Your task to perform on an android device: delete the emails in spam in the gmail app Image 0: 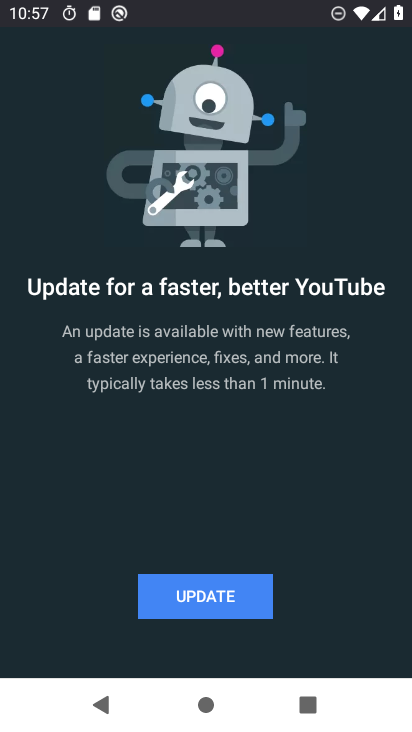
Step 0: press home button
Your task to perform on an android device: delete the emails in spam in the gmail app Image 1: 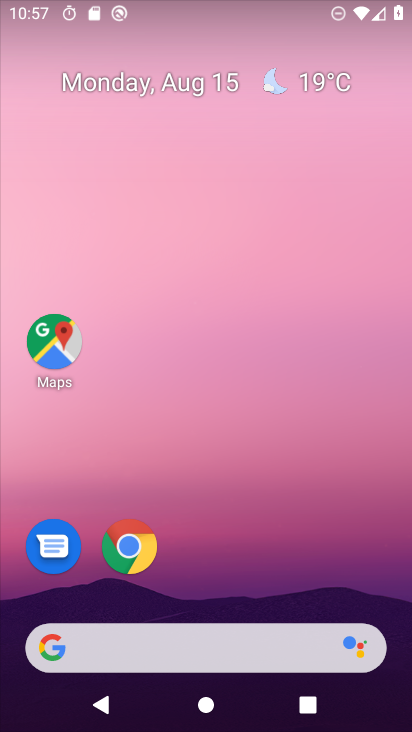
Step 1: drag from (219, 609) to (196, 20)
Your task to perform on an android device: delete the emails in spam in the gmail app Image 2: 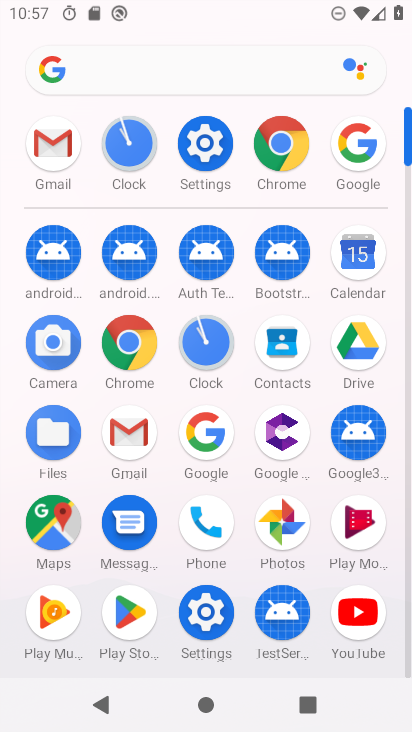
Step 2: click (122, 436)
Your task to perform on an android device: delete the emails in spam in the gmail app Image 3: 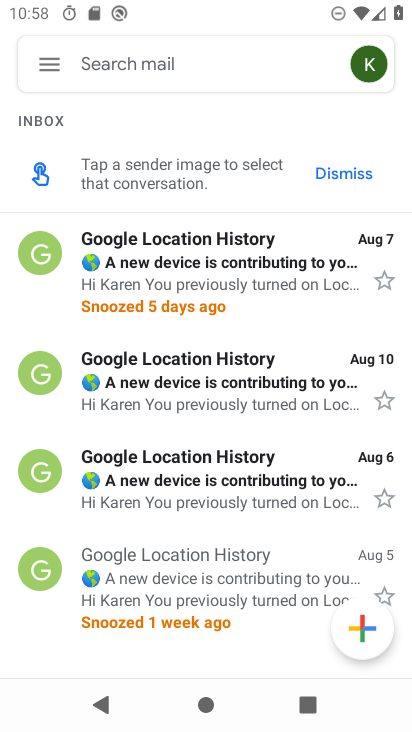
Step 3: click (52, 64)
Your task to perform on an android device: delete the emails in spam in the gmail app Image 4: 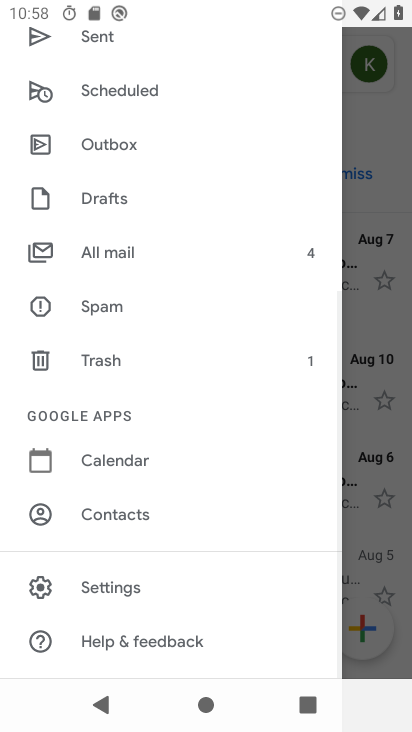
Step 4: click (108, 306)
Your task to perform on an android device: delete the emails in spam in the gmail app Image 5: 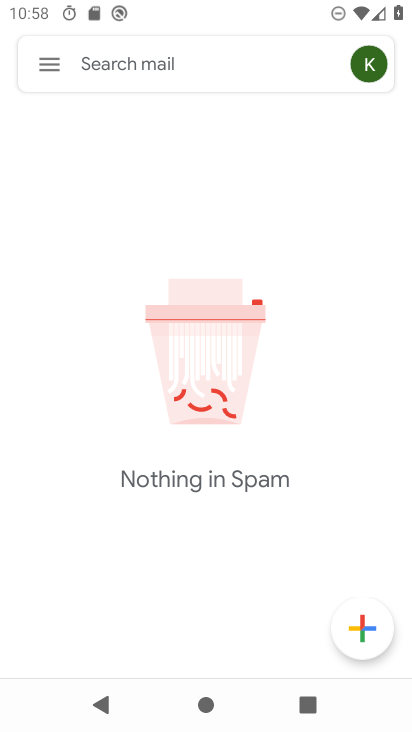
Step 5: task complete